Your task to perform on an android device: Open Yahoo.com Image 0: 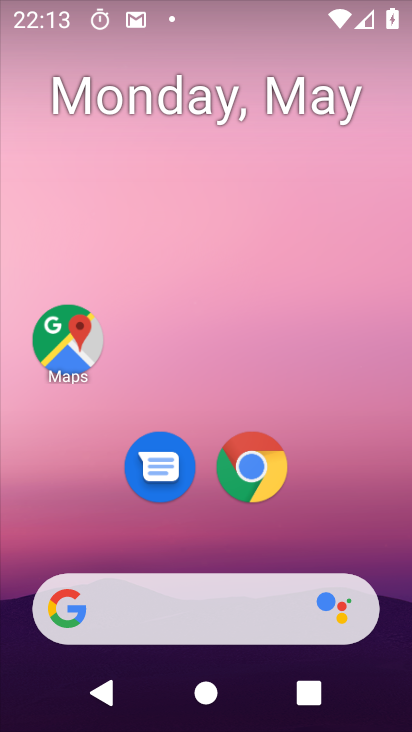
Step 0: press home button
Your task to perform on an android device: Open Yahoo.com Image 1: 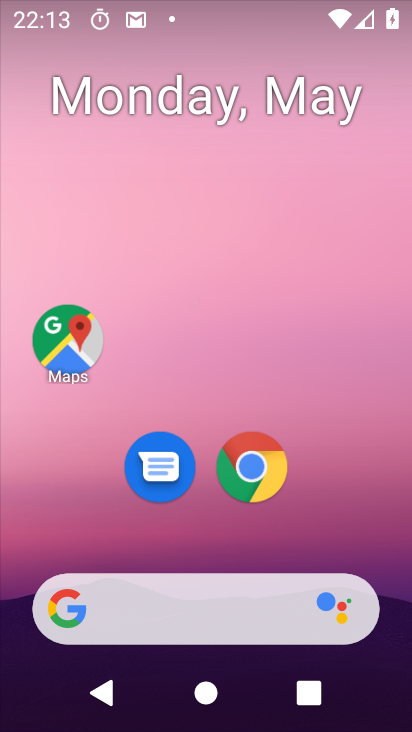
Step 1: click (261, 467)
Your task to perform on an android device: Open Yahoo.com Image 2: 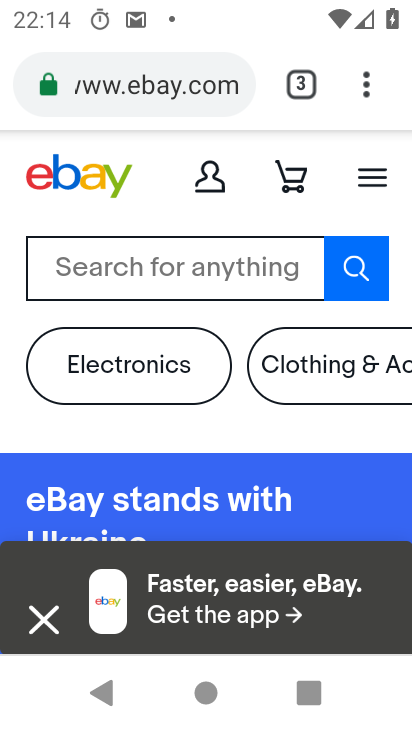
Step 2: click (179, 92)
Your task to perform on an android device: Open Yahoo.com Image 3: 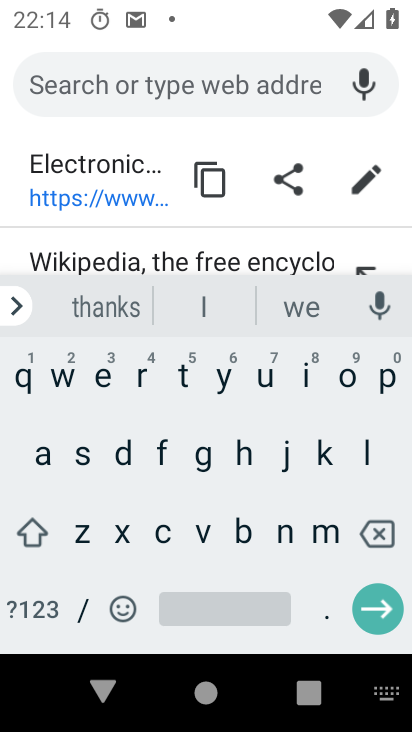
Step 3: click (222, 378)
Your task to perform on an android device: Open Yahoo.com Image 4: 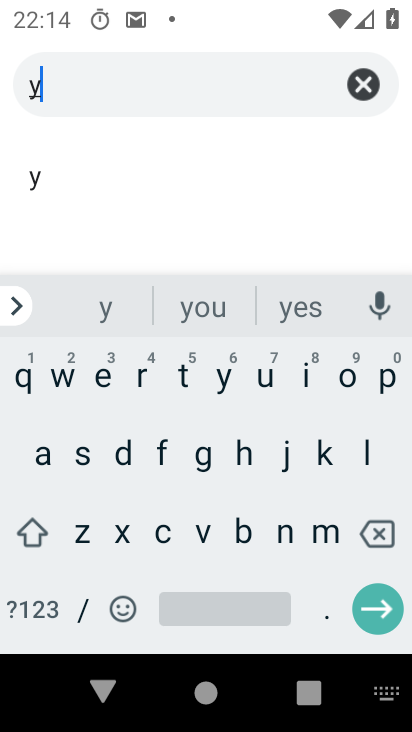
Step 4: click (42, 460)
Your task to perform on an android device: Open Yahoo.com Image 5: 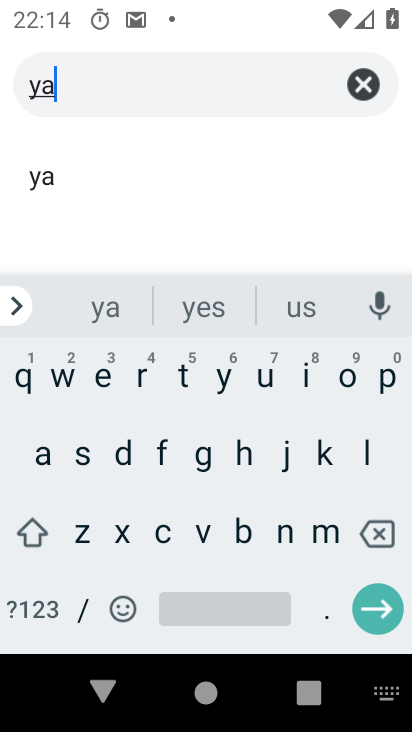
Step 5: click (243, 452)
Your task to perform on an android device: Open Yahoo.com Image 6: 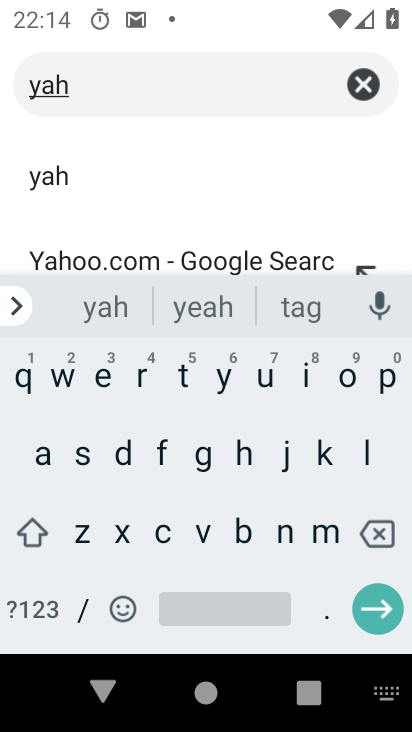
Step 6: click (152, 255)
Your task to perform on an android device: Open Yahoo.com Image 7: 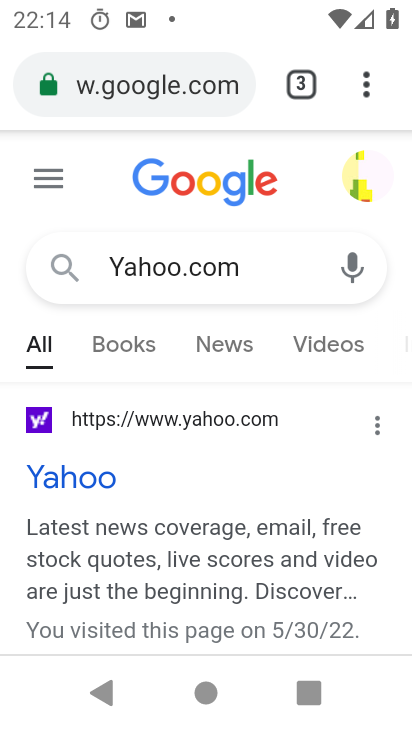
Step 7: click (99, 412)
Your task to perform on an android device: Open Yahoo.com Image 8: 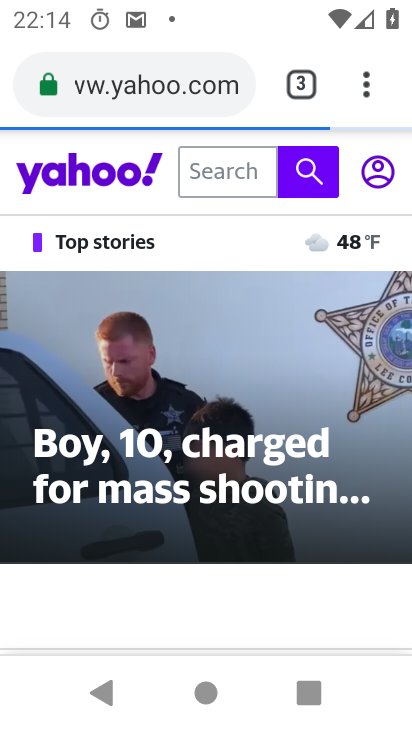
Step 8: task complete